Your task to perform on an android device: find snoozed emails in the gmail app Image 0: 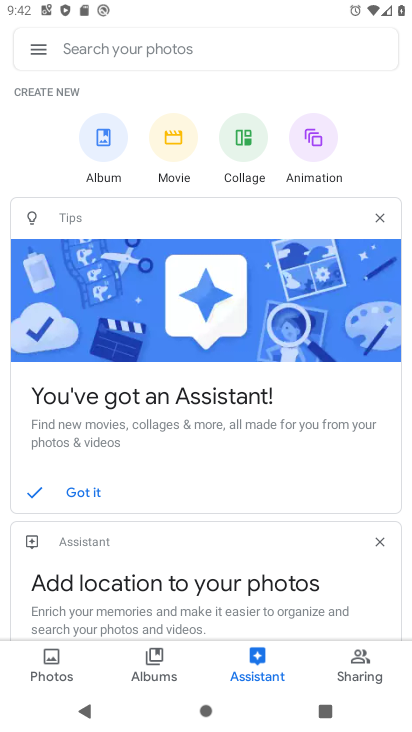
Step 0: press back button
Your task to perform on an android device: find snoozed emails in the gmail app Image 1: 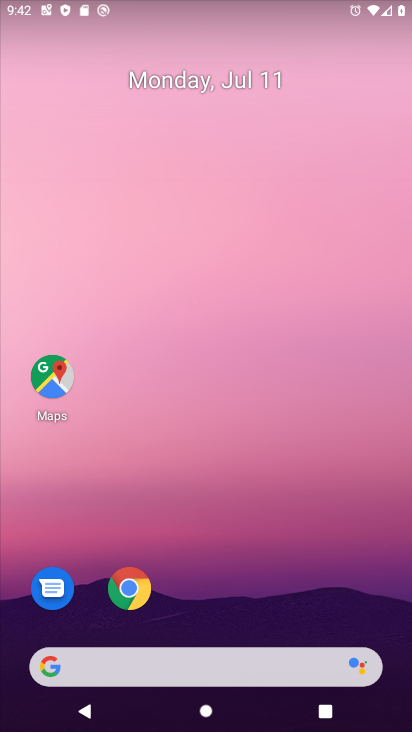
Step 1: drag from (196, 594) to (279, 55)
Your task to perform on an android device: find snoozed emails in the gmail app Image 2: 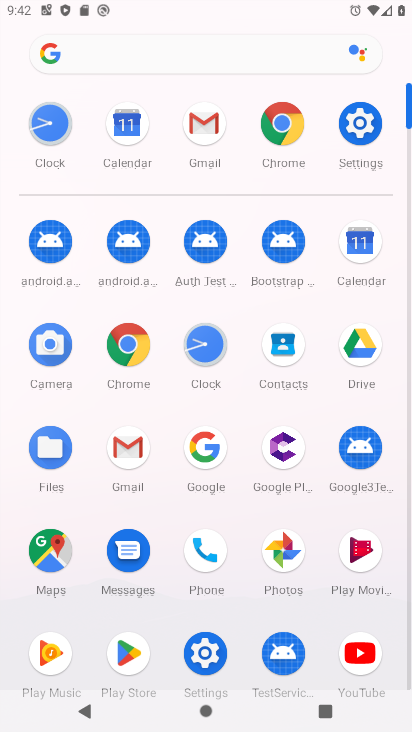
Step 2: click (198, 126)
Your task to perform on an android device: find snoozed emails in the gmail app Image 3: 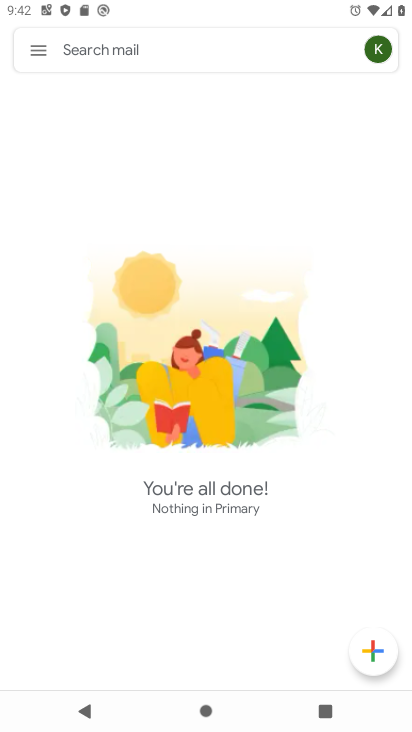
Step 3: click (22, 44)
Your task to perform on an android device: find snoozed emails in the gmail app Image 4: 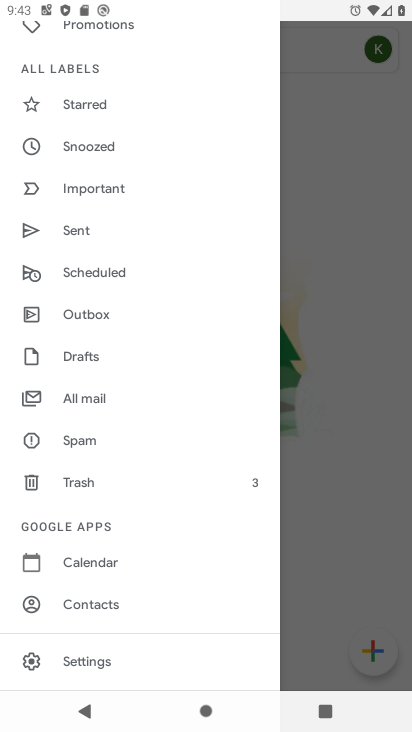
Step 4: click (97, 141)
Your task to perform on an android device: find snoozed emails in the gmail app Image 5: 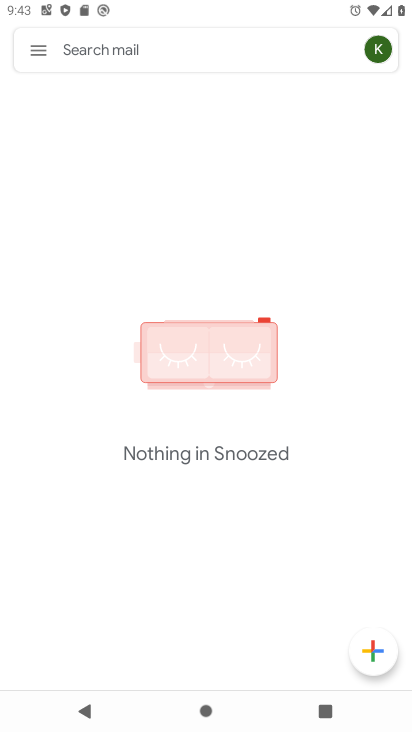
Step 5: task complete